Your task to perform on an android device: turn notification dots on Image 0: 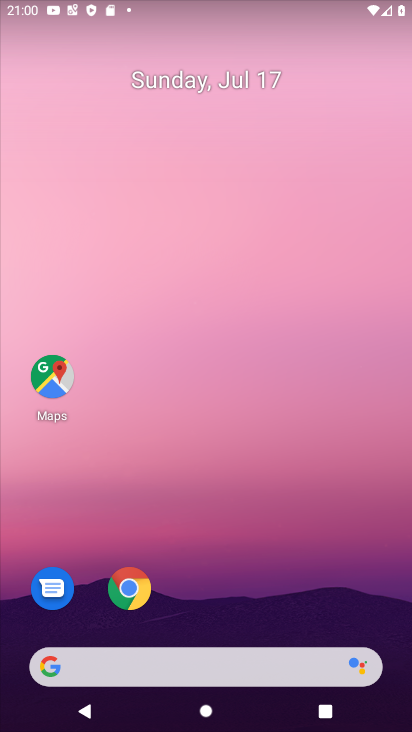
Step 0: press home button
Your task to perform on an android device: turn notification dots on Image 1: 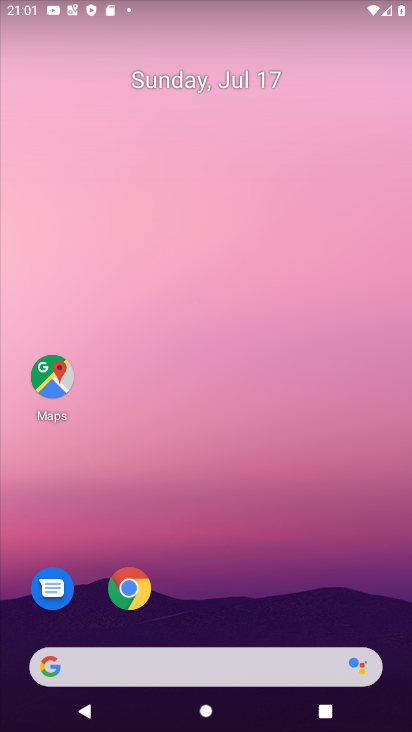
Step 1: drag from (226, 614) to (237, 211)
Your task to perform on an android device: turn notification dots on Image 2: 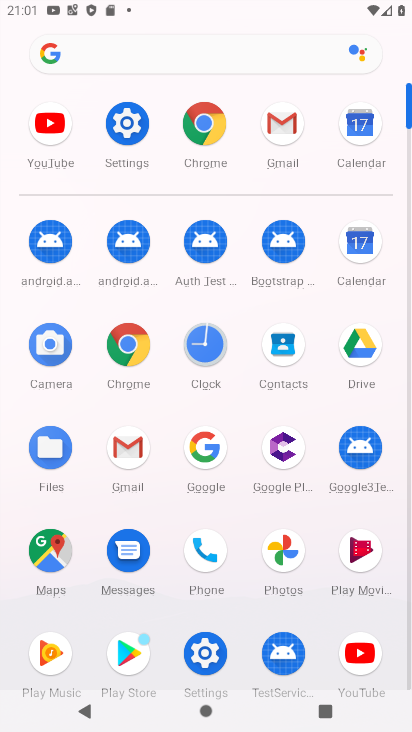
Step 2: click (152, 133)
Your task to perform on an android device: turn notification dots on Image 3: 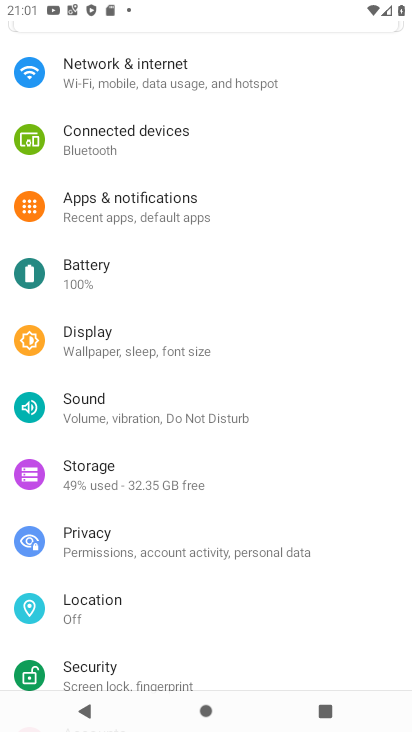
Step 3: click (134, 211)
Your task to perform on an android device: turn notification dots on Image 4: 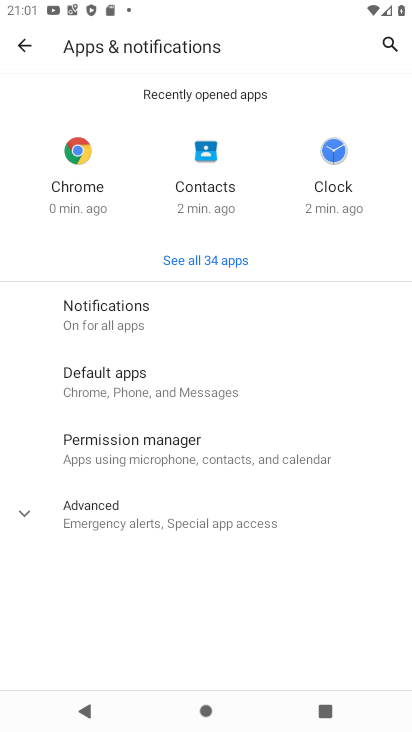
Step 4: click (151, 333)
Your task to perform on an android device: turn notification dots on Image 5: 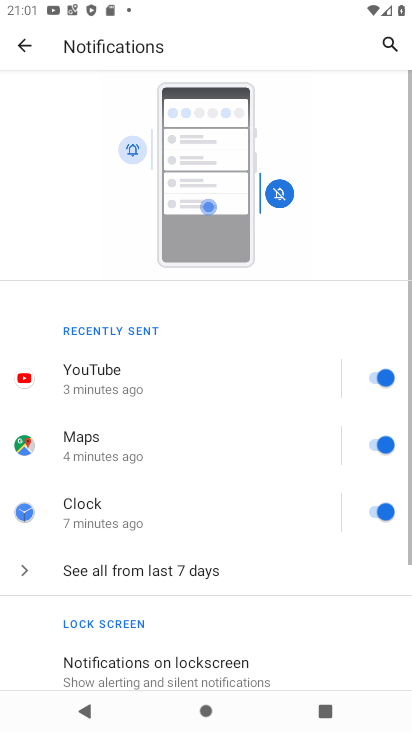
Step 5: drag from (141, 573) to (159, 91)
Your task to perform on an android device: turn notification dots on Image 6: 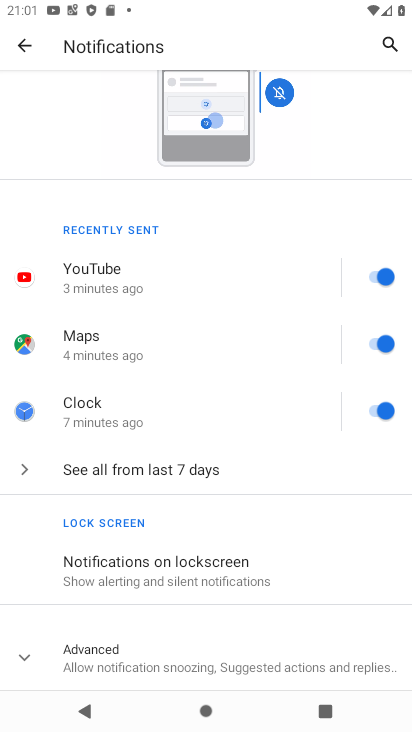
Step 6: click (101, 682)
Your task to perform on an android device: turn notification dots on Image 7: 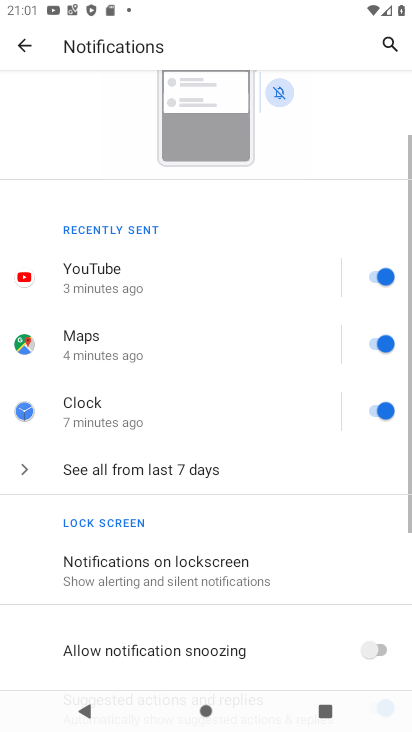
Step 7: task complete